Your task to perform on an android device: change the clock style Image 0: 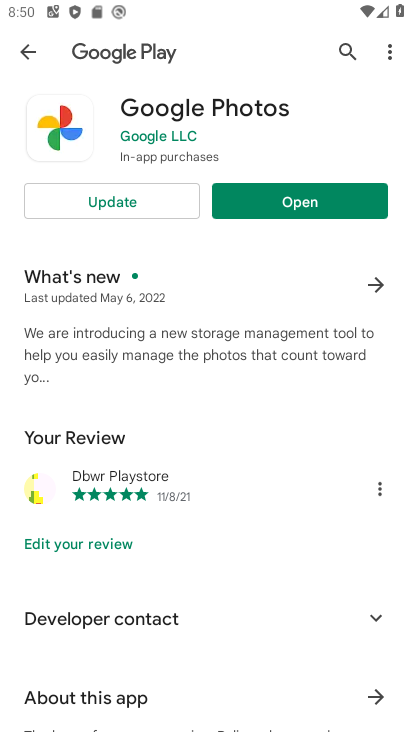
Step 0: press home button
Your task to perform on an android device: change the clock style Image 1: 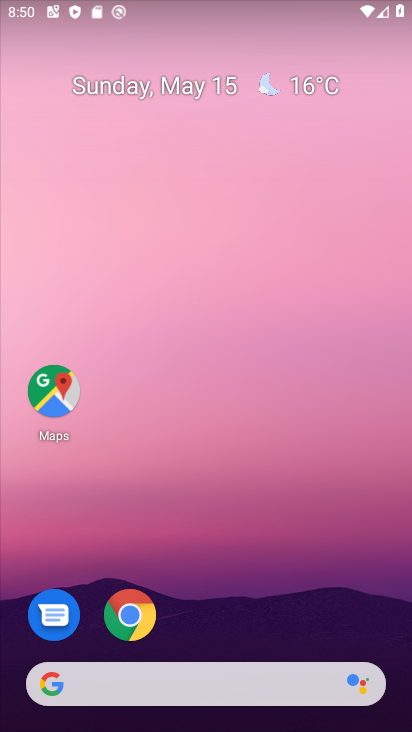
Step 1: drag from (337, 590) to (308, 109)
Your task to perform on an android device: change the clock style Image 2: 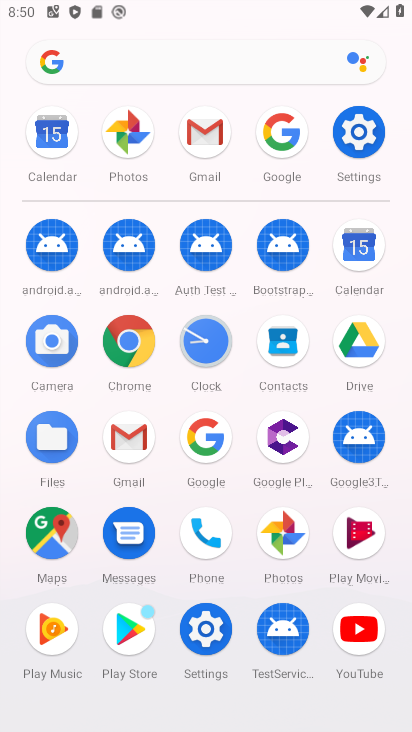
Step 2: click (209, 350)
Your task to perform on an android device: change the clock style Image 3: 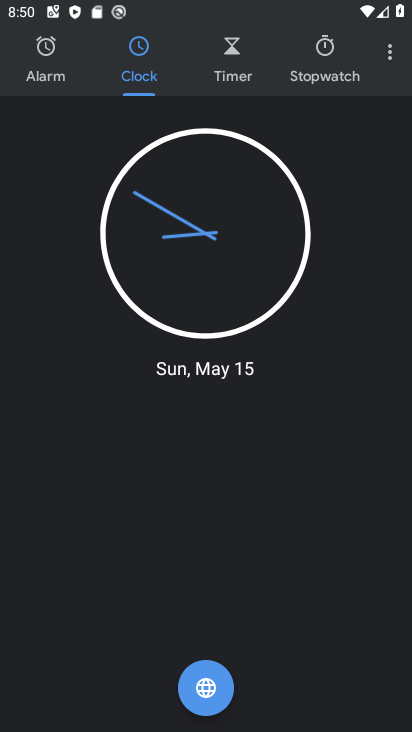
Step 3: click (388, 58)
Your task to perform on an android device: change the clock style Image 4: 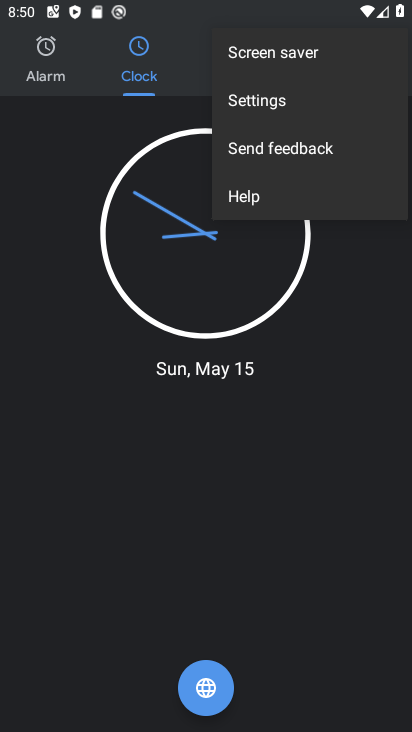
Step 4: click (283, 110)
Your task to perform on an android device: change the clock style Image 5: 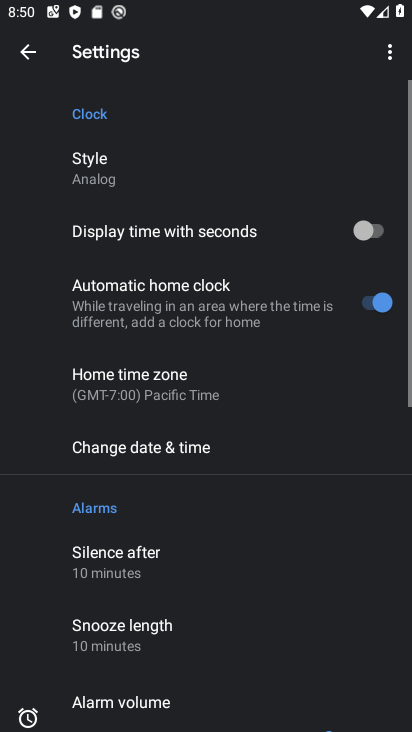
Step 5: click (162, 176)
Your task to perform on an android device: change the clock style Image 6: 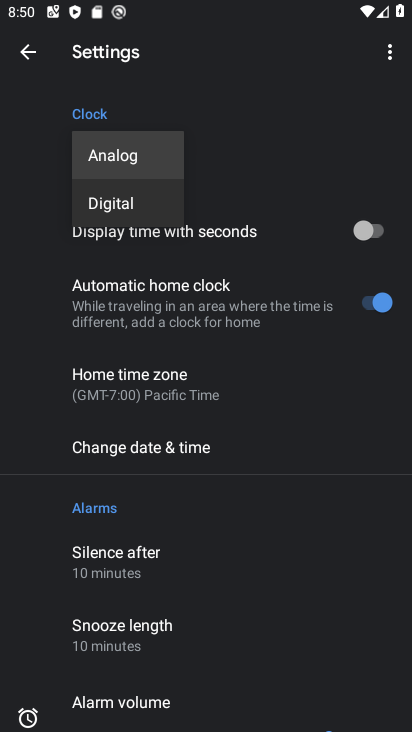
Step 6: click (110, 205)
Your task to perform on an android device: change the clock style Image 7: 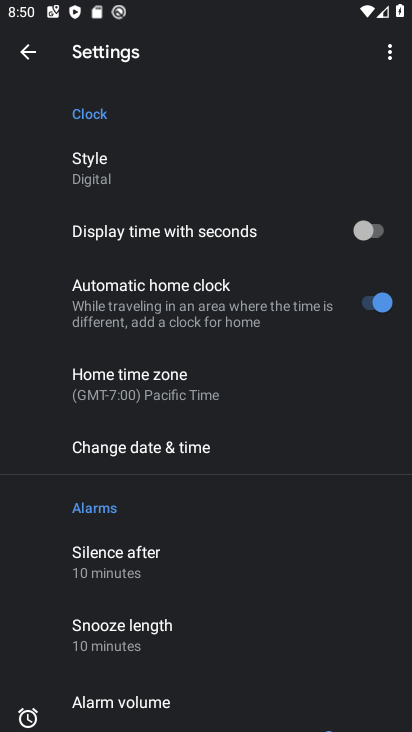
Step 7: task complete